Your task to perform on an android device: Go to network settings Image 0: 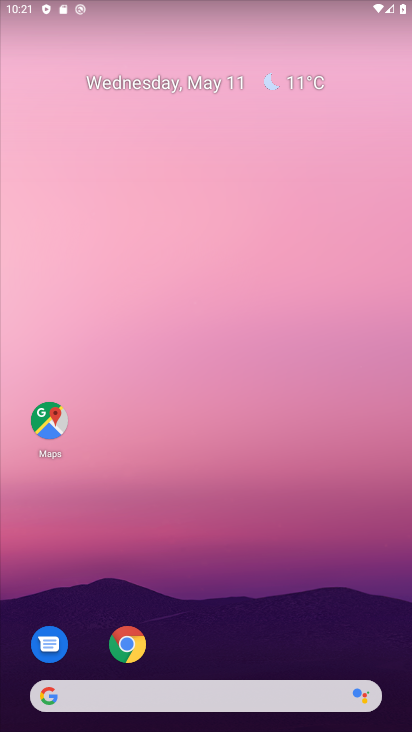
Step 0: drag from (351, 449) to (384, 9)
Your task to perform on an android device: Go to network settings Image 1: 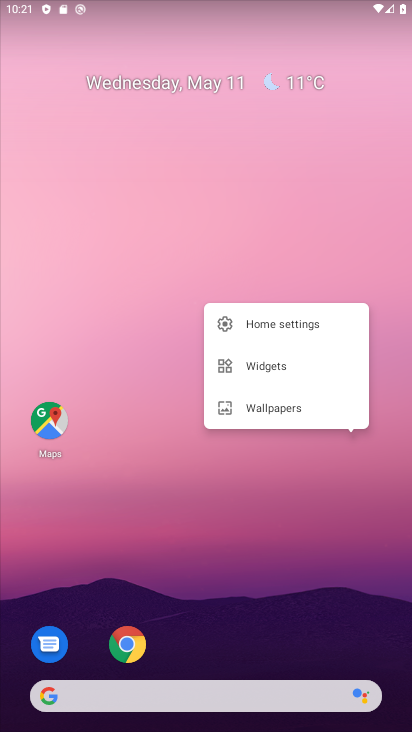
Step 1: drag from (282, 585) to (351, 11)
Your task to perform on an android device: Go to network settings Image 2: 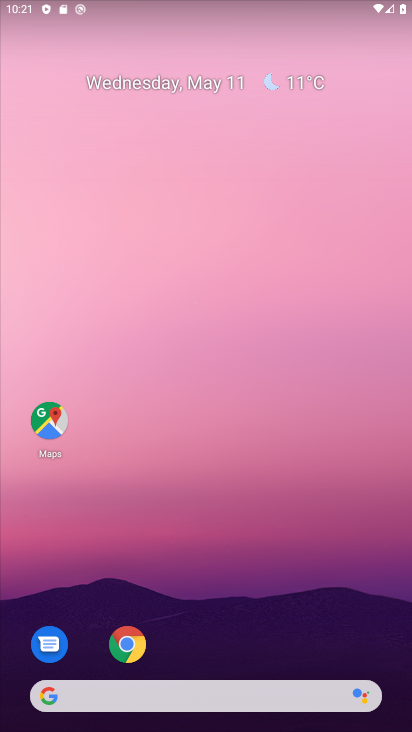
Step 2: drag from (268, 628) to (325, 9)
Your task to perform on an android device: Go to network settings Image 3: 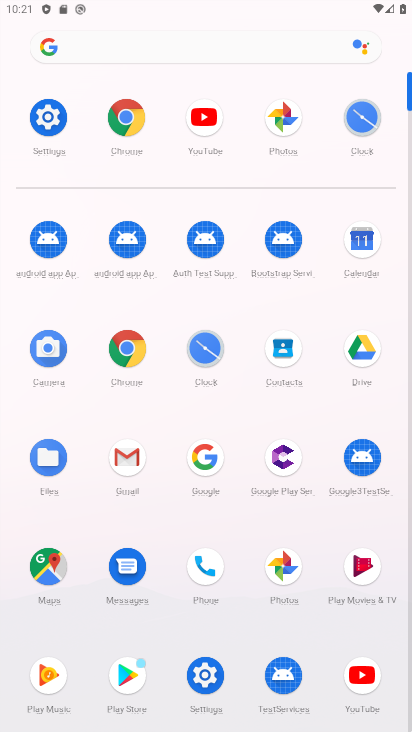
Step 3: click (56, 123)
Your task to perform on an android device: Go to network settings Image 4: 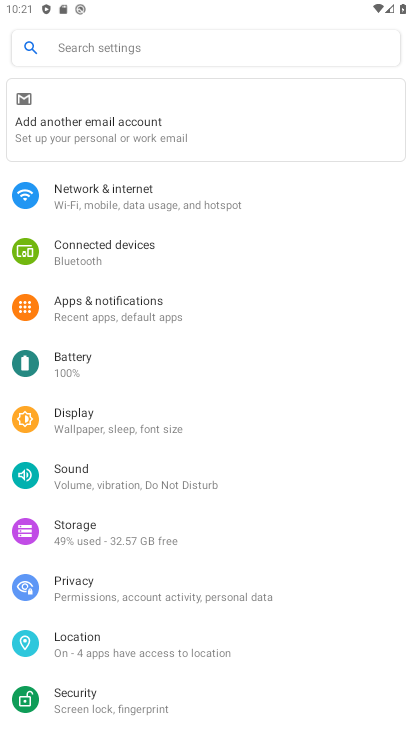
Step 4: click (139, 203)
Your task to perform on an android device: Go to network settings Image 5: 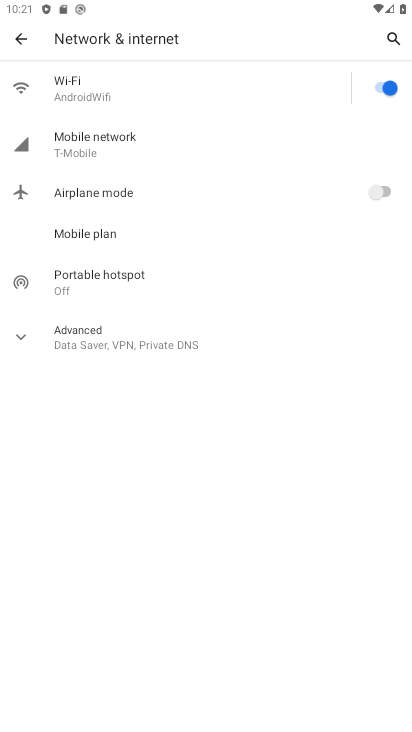
Step 5: click (117, 141)
Your task to perform on an android device: Go to network settings Image 6: 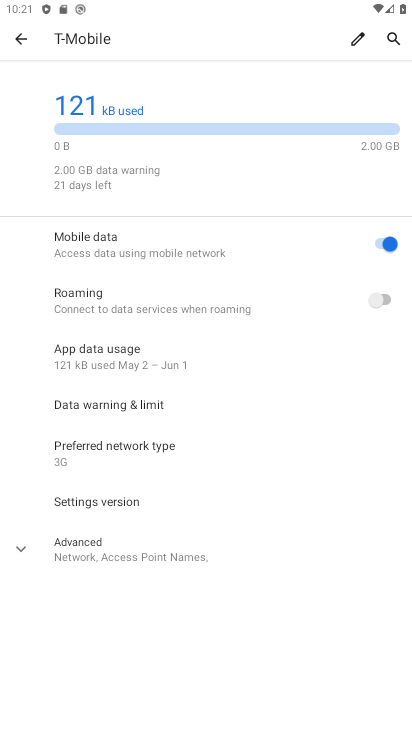
Step 6: click (19, 544)
Your task to perform on an android device: Go to network settings Image 7: 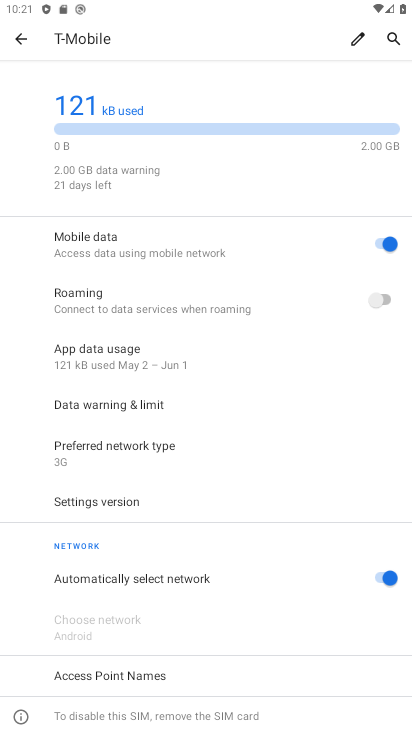
Step 7: task complete